Your task to perform on an android device: change the upload size in google photos Image 0: 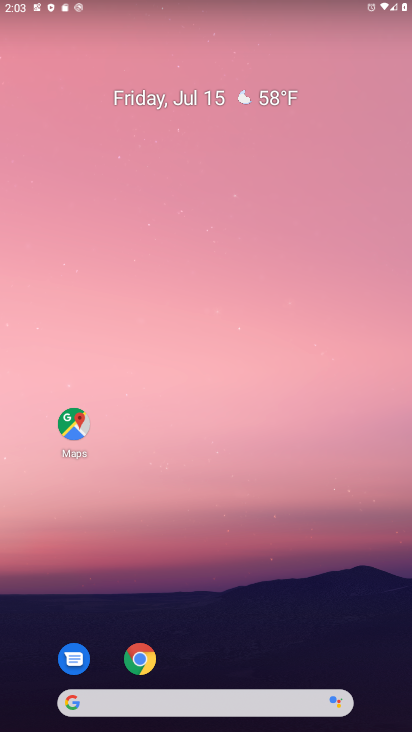
Step 0: drag from (214, 723) to (209, 286)
Your task to perform on an android device: change the upload size in google photos Image 1: 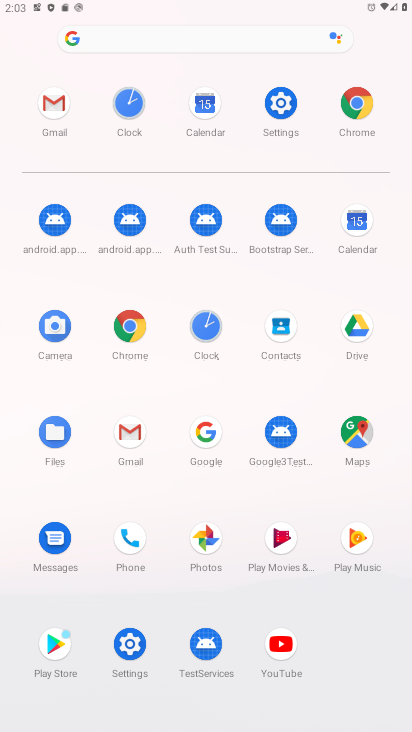
Step 1: click (203, 533)
Your task to perform on an android device: change the upload size in google photos Image 2: 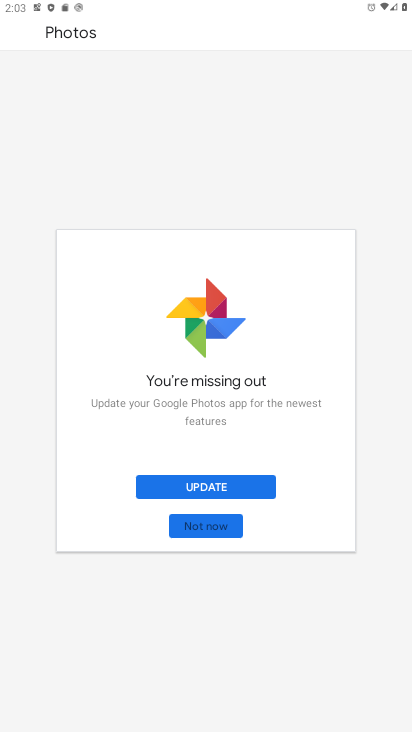
Step 2: task complete